Your task to perform on an android device: change the upload size in google photos Image 0: 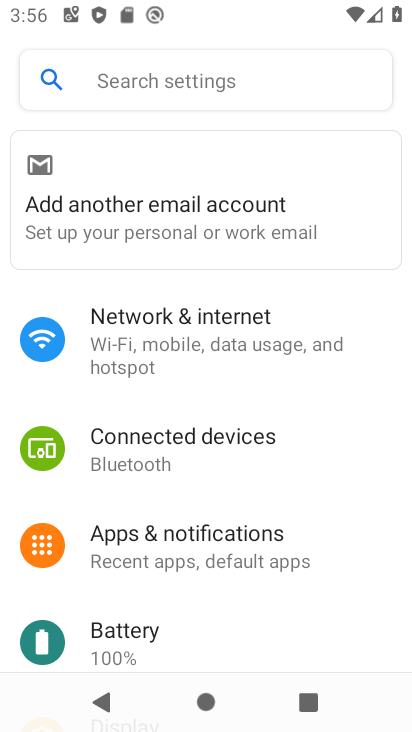
Step 0: press home button
Your task to perform on an android device: change the upload size in google photos Image 1: 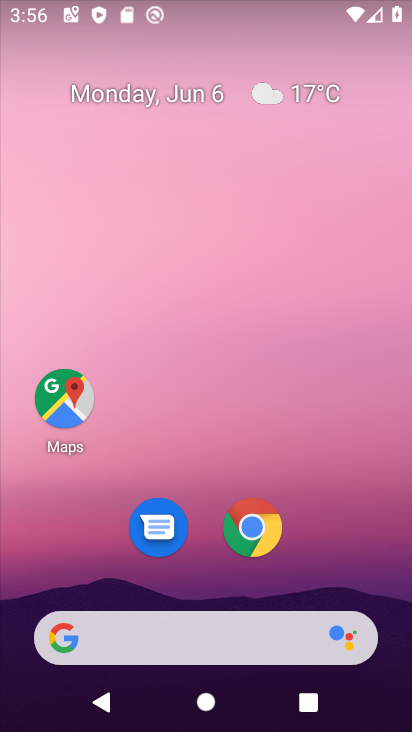
Step 1: drag from (100, 507) to (83, 310)
Your task to perform on an android device: change the upload size in google photos Image 2: 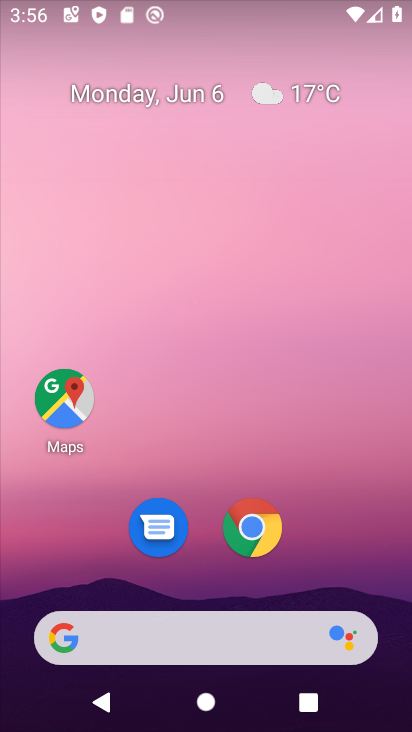
Step 2: drag from (215, 581) to (185, 202)
Your task to perform on an android device: change the upload size in google photos Image 3: 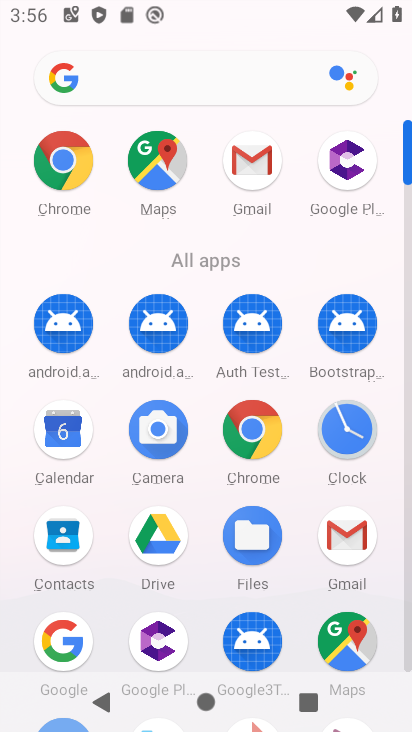
Step 3: drag from (193, 649) to (192, 317)
Your task to perform on an android device: change the upload size in google photos Image 4: 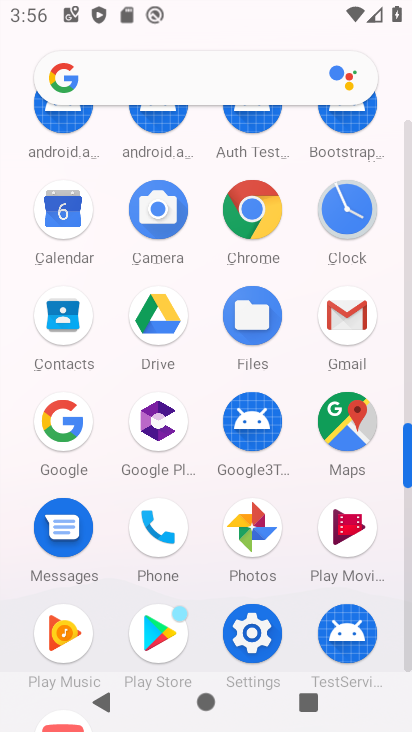
Step 4: click (236, 536)
Your task to perform on an android device: change the upload size in google photos Image 5: 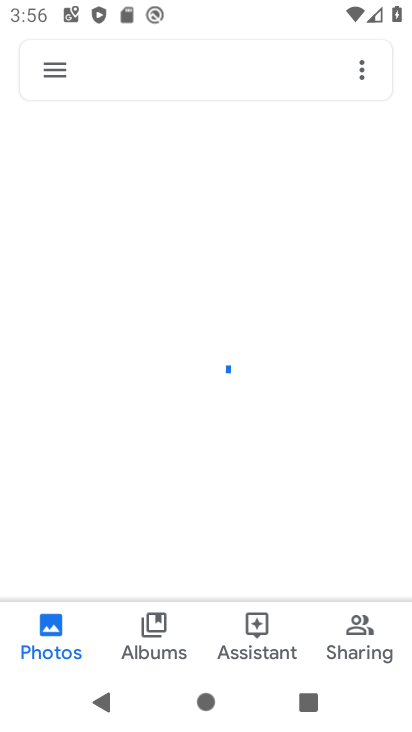
Step 5: click (47, 72)
Your task to perform on an android device: change the upload size in google photos Image 6: 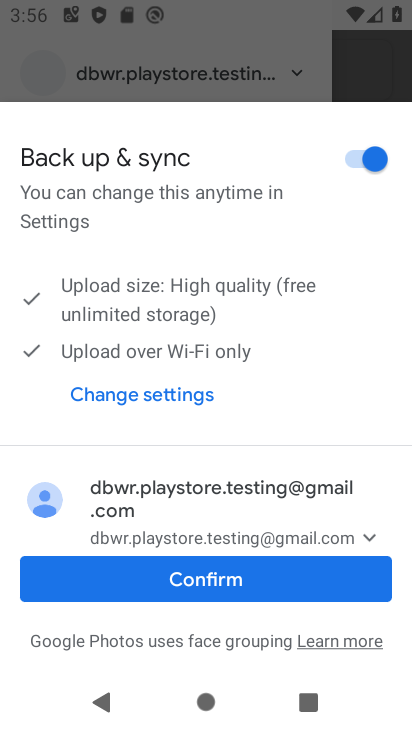
Step 6: click (181, 580)
Your task to perform on an android device: change the upload size in google photos Image 7: 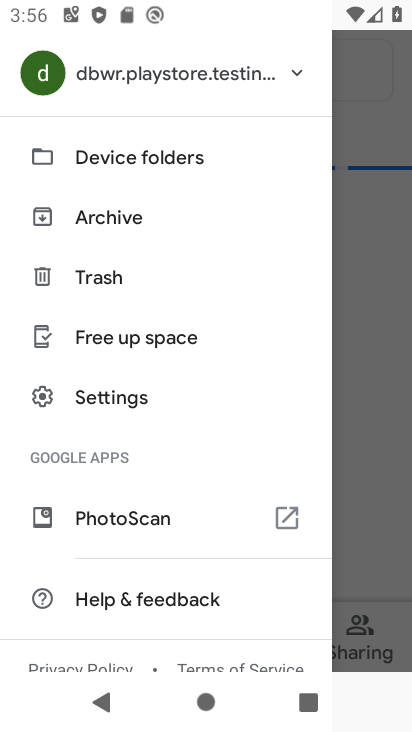
Step 7: click (111, 402)
Your task to perform on an android device: change the upload size in google photos Image 8: 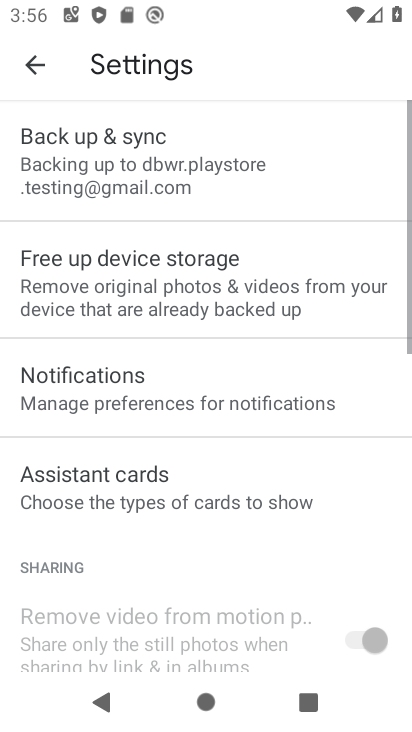
Step 8: click (115, 169)
Your task to perform on an android device: change the upload size in google photos Image 9: 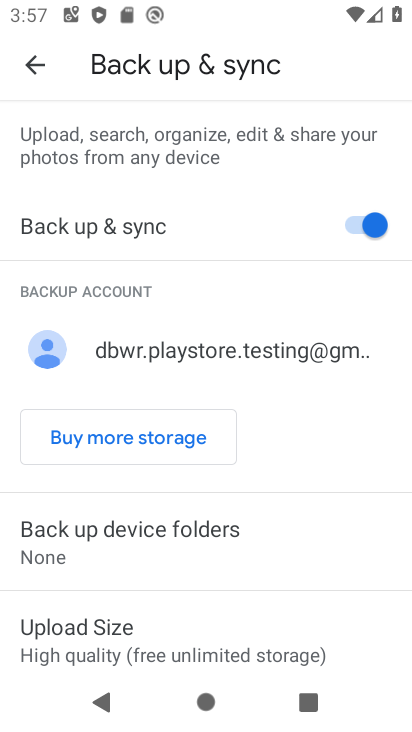
Step 9: click (147, 633)
Your task to perform on an android device: change the upload size in google photos Image 10: 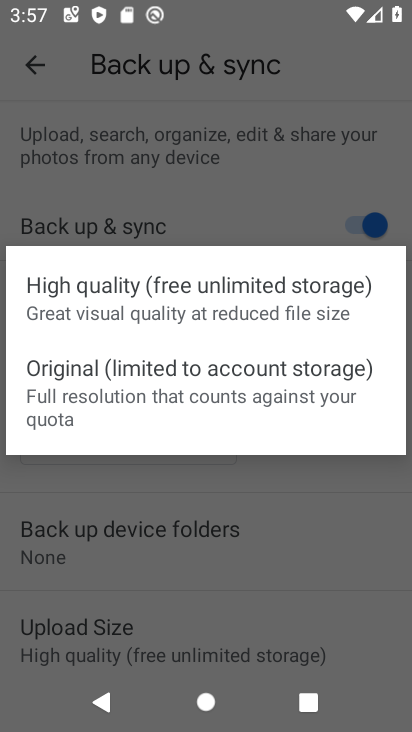
Step 10: click (77, 385)
Your task to perform on an android device: change the upload size in google photos Image 11: 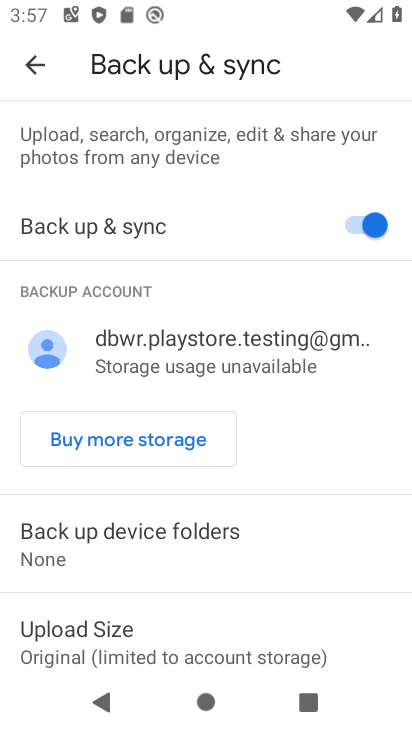
Step 11: task complete